Your task to perform on an android device: move a message to another label in the gmail app Image 0: 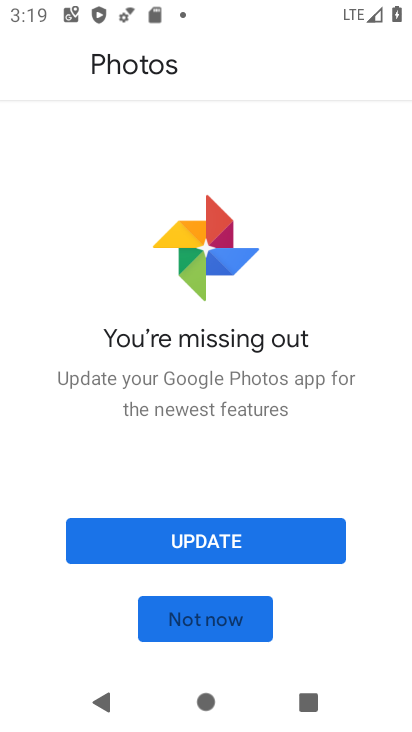
Step 0: press back button
Your task to perform on an android device: move a message to another label in the gmail app Image 1: 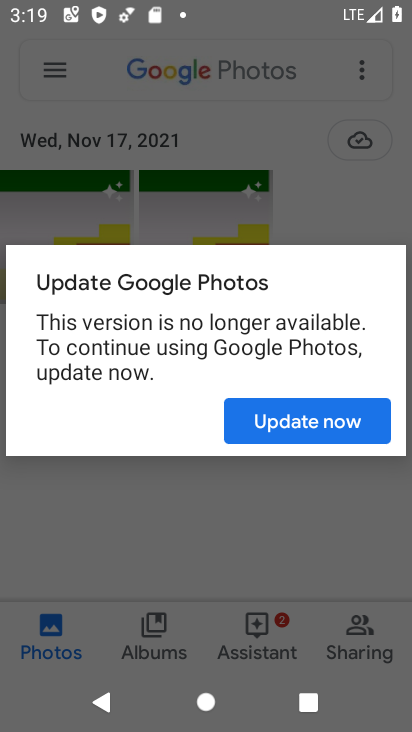
Step 1: press home button
Your task to perform on an android device: move a message to another label in the gmail app Image 2: 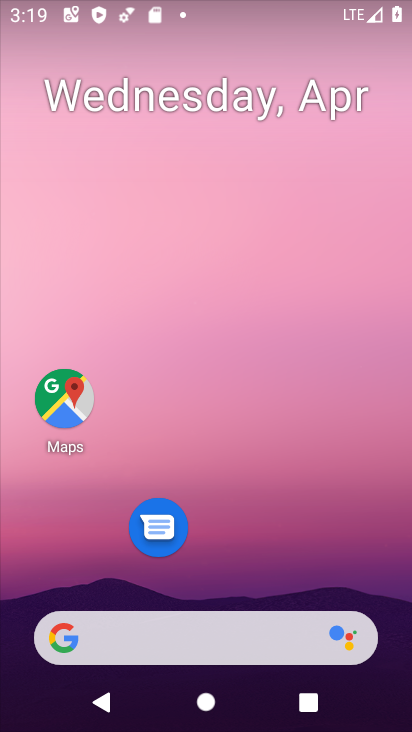
Step 2: drag from (237, 361) to (265, 2)
Your task to perform on an android device: move a message to another label in the gmail app Image 3: 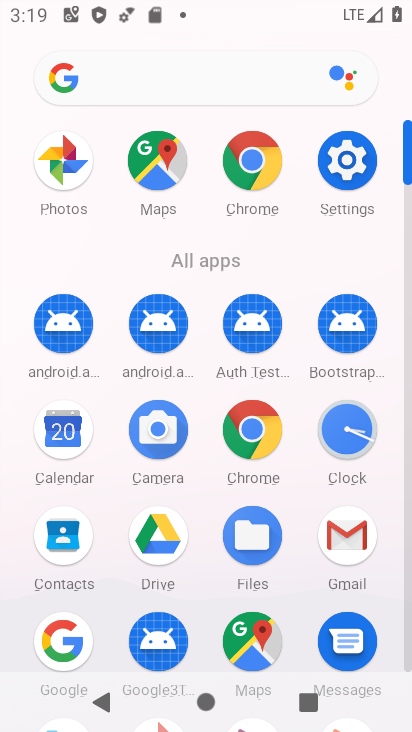
Step 3: click (343, 528)
Your task to perform on an android device: move a message to another label in the gmail app Image 4: 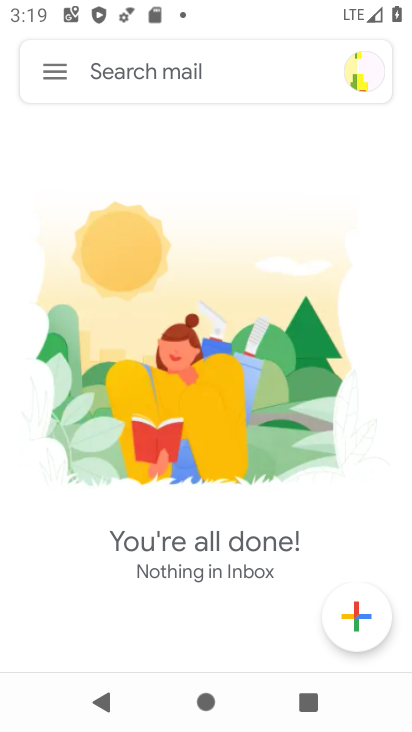
Step 4: task complete